Your task to perform on an android device: Open the Play Movies app and select the watchlist tab. Image 0: 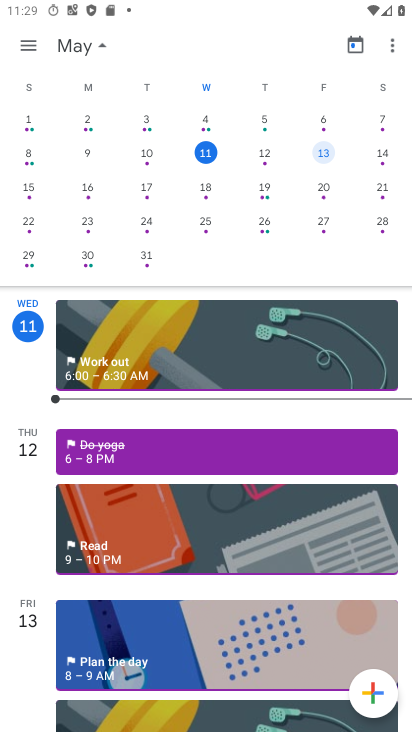
Step 0: press home button
Your task to perform on an android device: Open the Play Movies app and select the watchlist tab. Image 1: 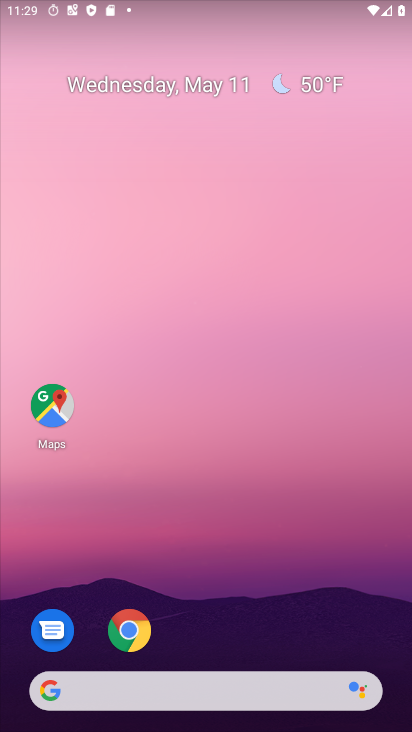
Step 1: drag from (234, 646) to (241, 311)
Your task to perform on an android device: Open the Play Movies app and select the watchlist tab. Image 2: 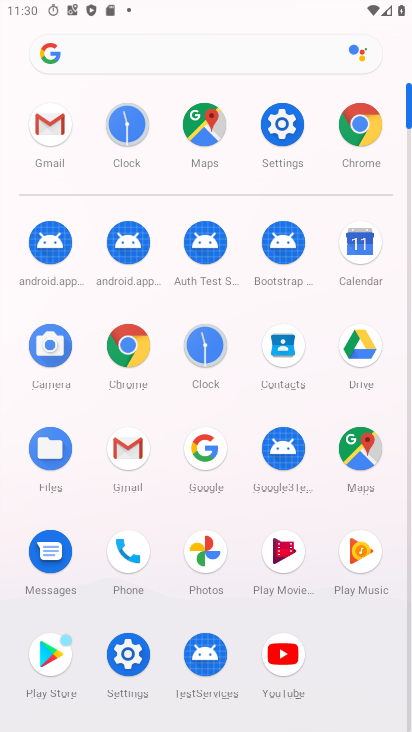
Step 2: click (286, 561)
Your task to perform on an android device: Open the Play Movies app and select the watchlist tab. Image 3: 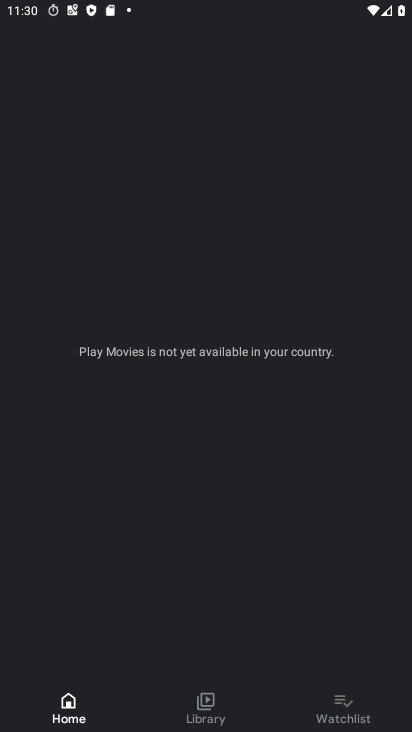
Step 3: click (342, 725)
Your task to perform on an android device: Open the Play Movies app and select the watchlist tab. Image 4: 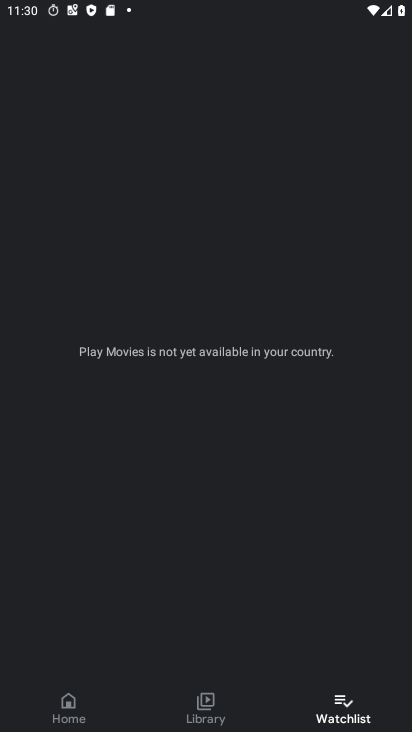
Step 4: task complete